Your task to perform on an android device: turn off improve location accuracy Image 0: 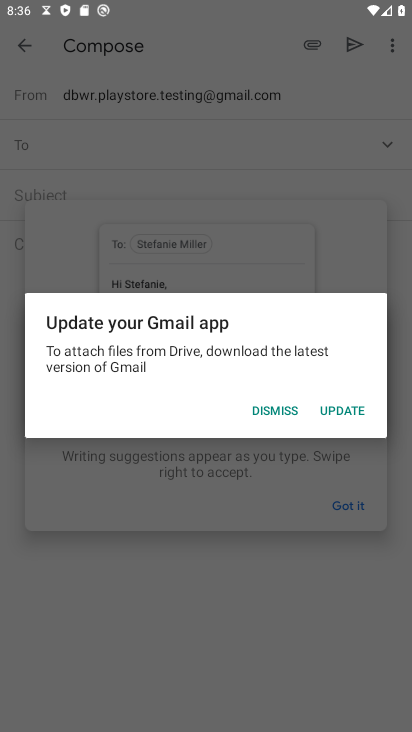
Step 0: press home button
Your task to perform on an android device: turn off improve location accuracy Image 1: 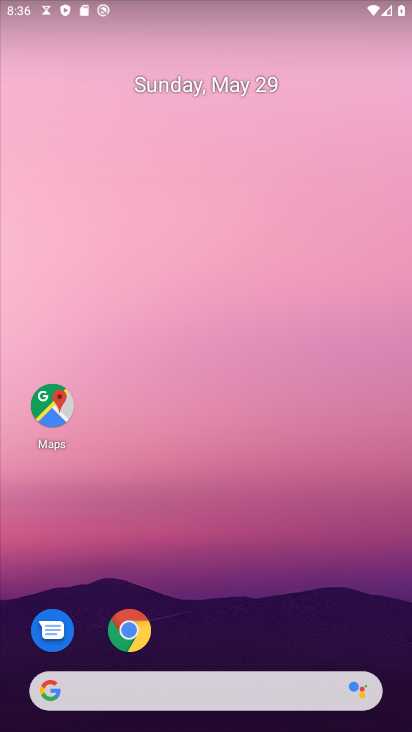
Step 1: drag from (347, 598) to (337, 151)
Your task to perform on an android device: turn off improve location accuracy Image 2: 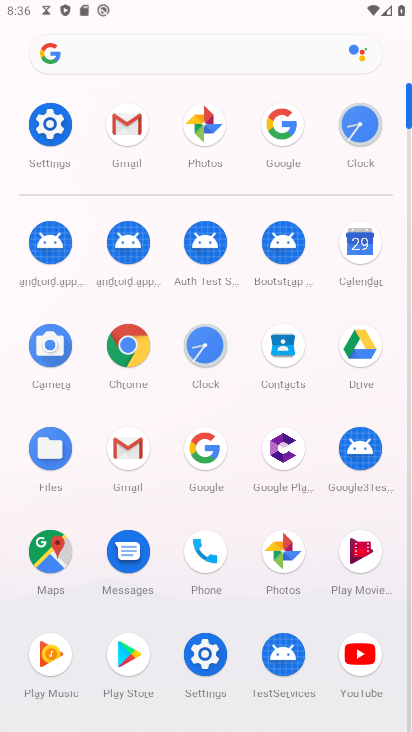
Step 2: click (36, 124)
Your task to perform on an android device: turn off improve location accuracy Image 3: 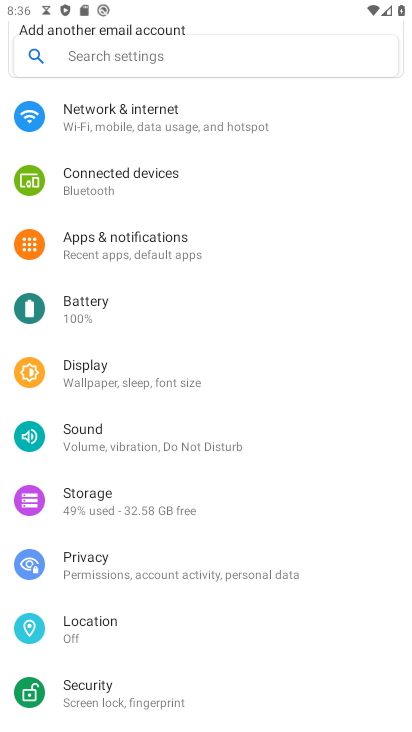
Step 3: click (86, 633)
Your task to perform on an android device: turn off improve location accuracy Image 4: 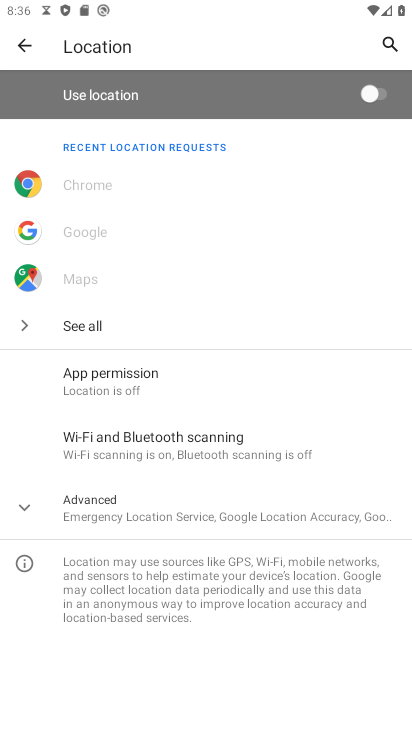
Step 4: click (182, 524)
Your task to perform on an android device: turn off improve location accuracy Image 5: 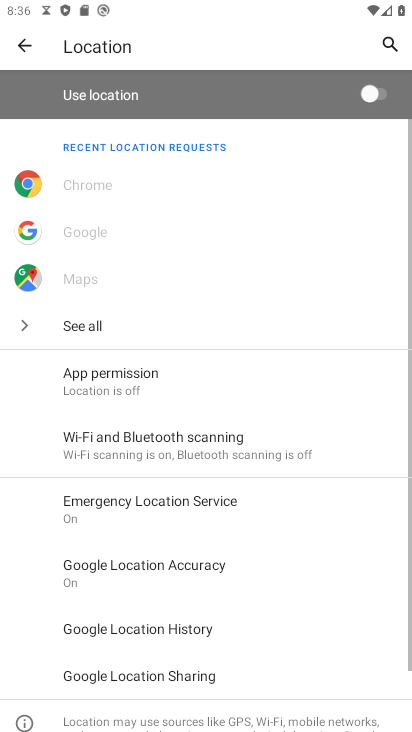
Step 5: click (182, 524)
Your task to perform on an android device: turn off improve location accuracy Image 6: 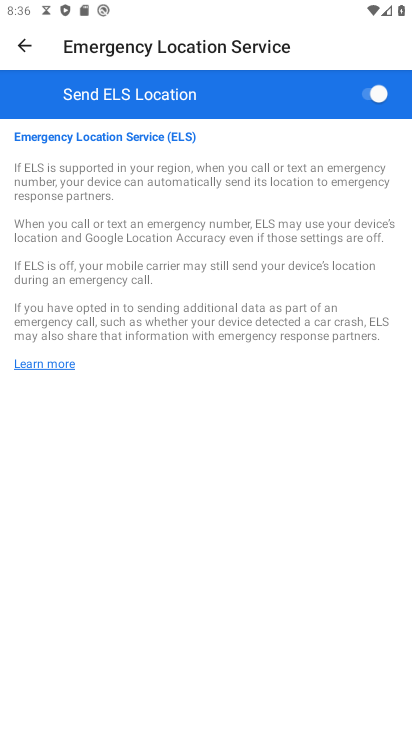
Step 6: press back button
Your task to perform on an android device: turn off improve location accuracy Image 7: 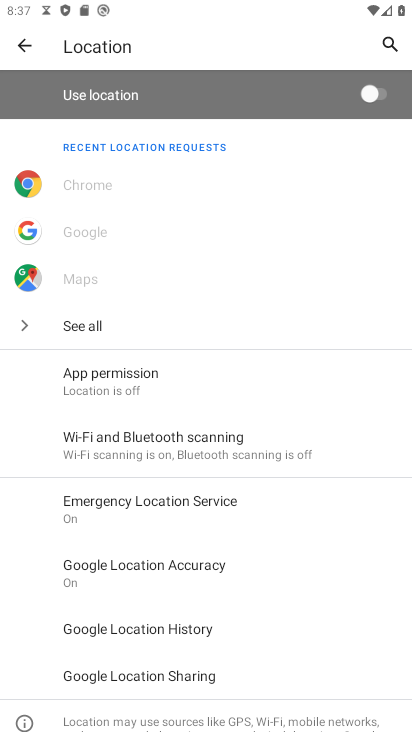
Step 7: click (179, 571)
Your task to perform on an android device: turn off improve location accuracy Image 8: 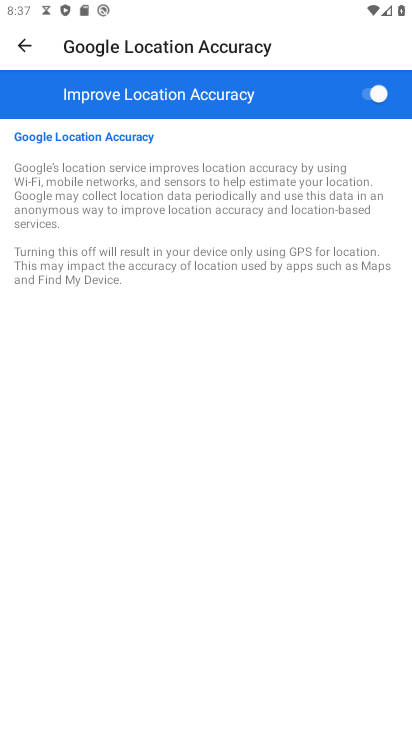
Step 8: click (366, 87)
Your task to perform on an android device: turn off improve location accuracy Image 9: 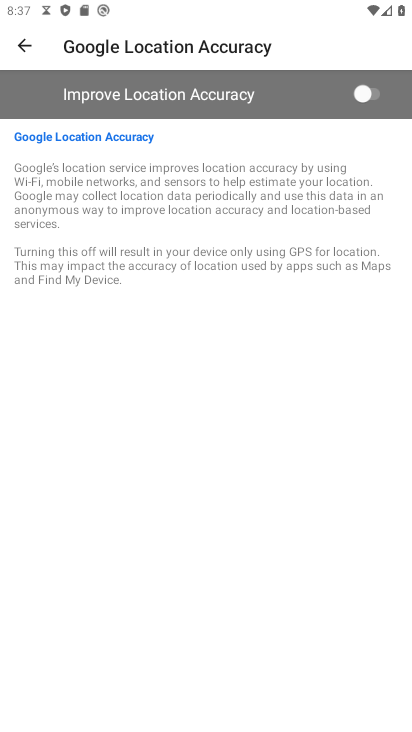
Step 9: task complete